Your task to perform on an android device: find which apps use the phone's location Image 0: 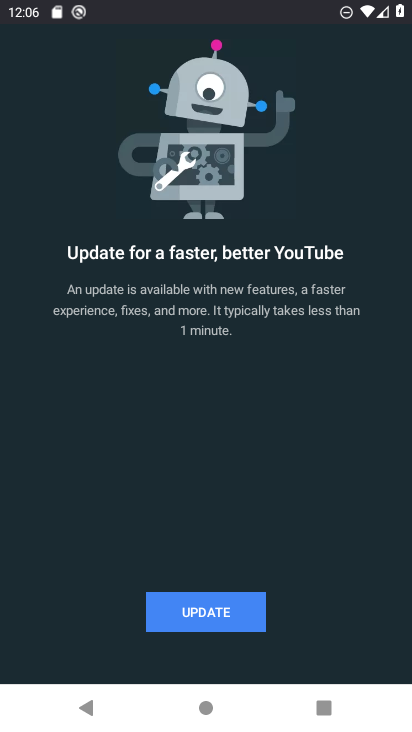
Step 0: press home button
Your task to perform on an android device: find which apps use the phone's location Image 1: 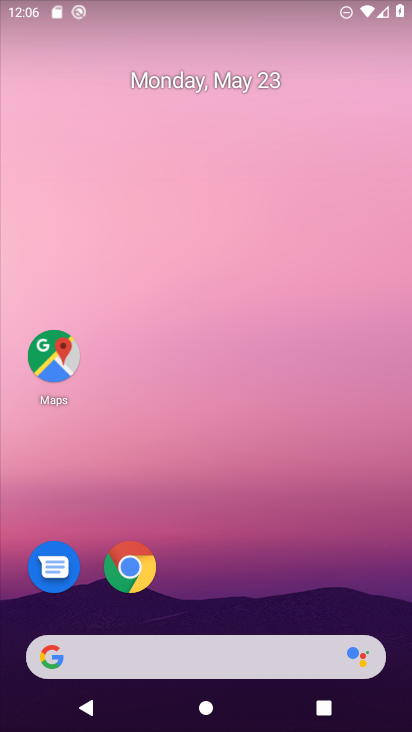
Step 1: drag from (186, 615) to (300, 111)
Your task to perform on an android device: find which apps use the phone's location Image 2: 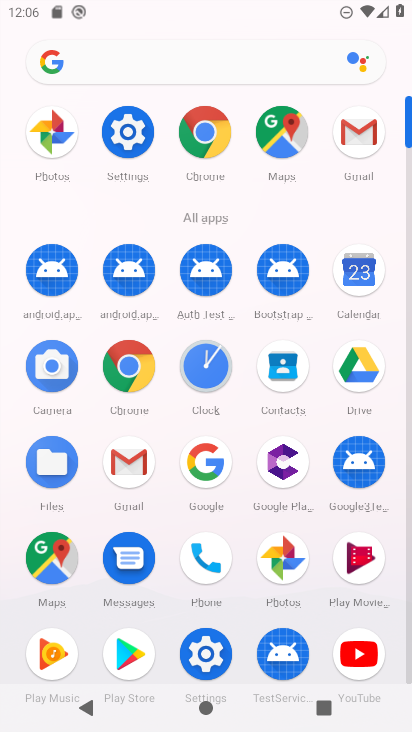
Step 2: click (144, 130)
Your task to perform on an android device: find which apps use the phone's location Image 3: 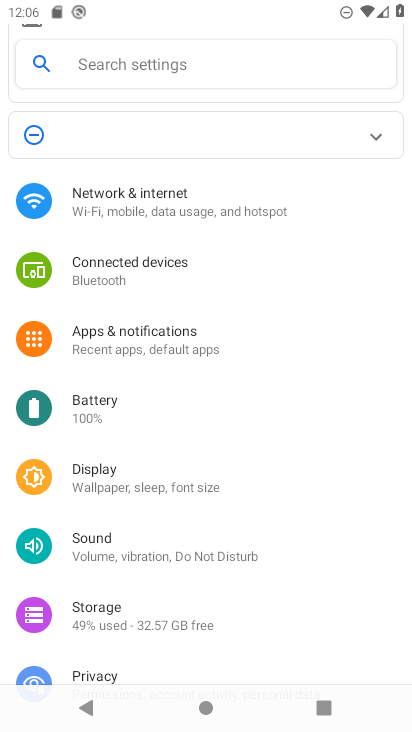
Step 3: drag from (68, 651) to (175, 146)
Your task to perform on an android device: find which apps use the phone's location Image 4: 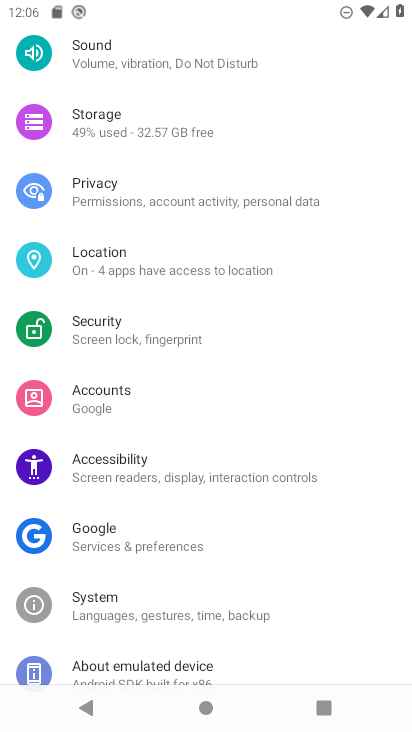
Step 4: click (108, 265)
Your task to perform on an android device: find which apps use the phone's location Image 5: 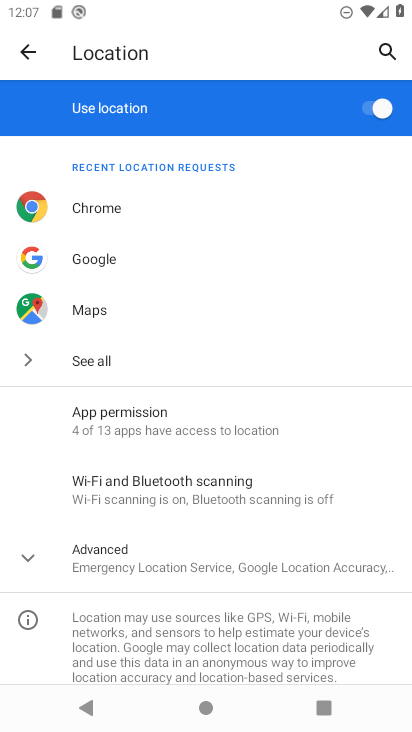
Step 5: click (80, 363)
Your task to perform on an android device: find which apps use the phone's location Image 6: 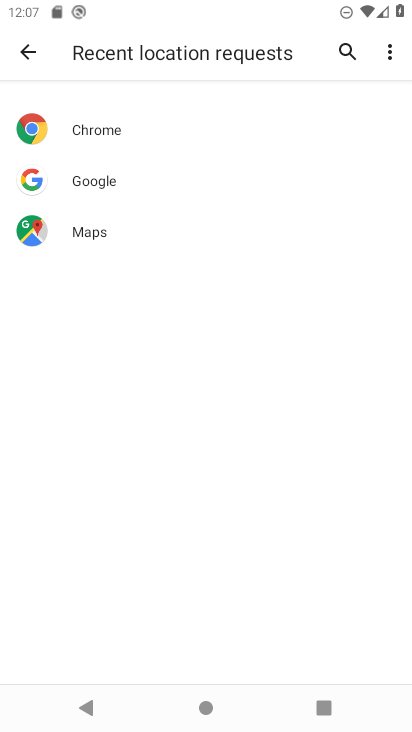
Step 6: task complete